Your task to perform on an android device: turn pop-ups on in chrome Image 0: 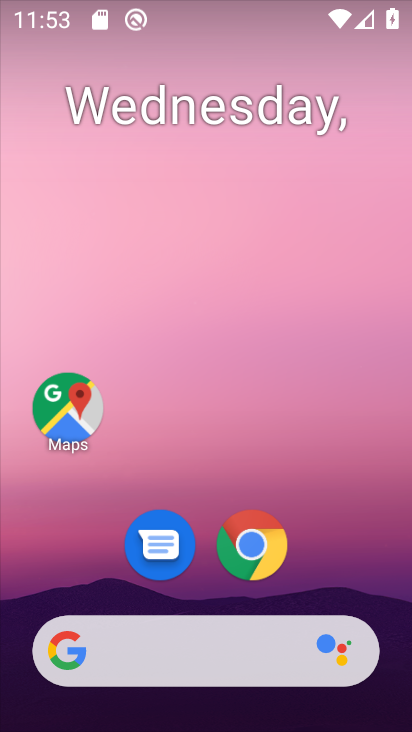
Step 0: drag from (321, 218) to (305, 71)
Your task to perform on an android device: turn pop-ups on in chrome Image 1: 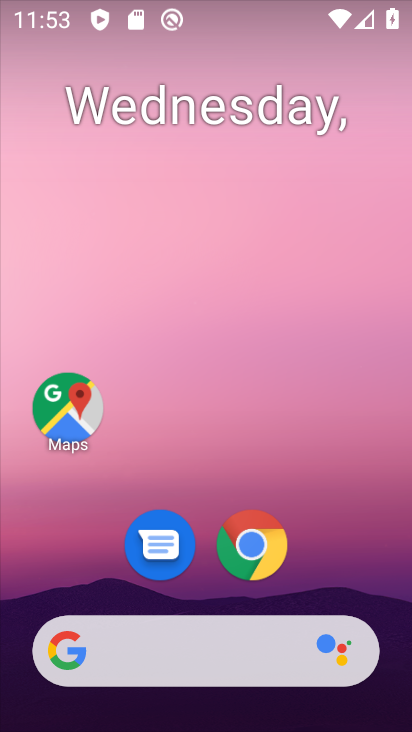
Step 1: drag from (347, 392) to (310, 51)
Your task to perform on an android device: turn pop-ups on in chrome Image 2: 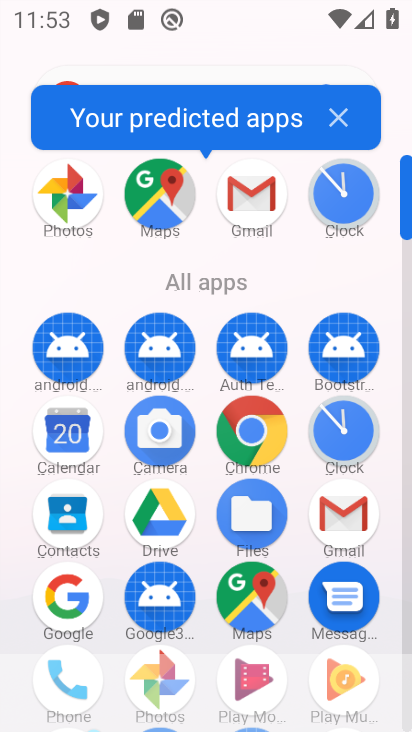
Step 2: click (243, 427)
Your task to perform on an android device: turn pop-ups on in chrome Image 3: 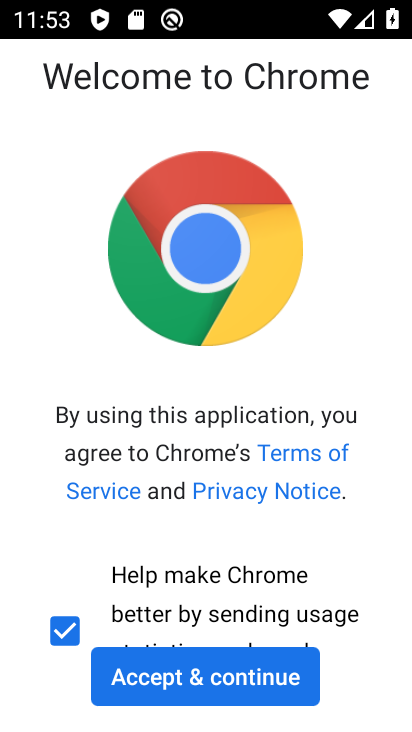
Step 3: click (164, 693)
Your task to perform on an android device: turn pop-ups on in chrome Image 4: 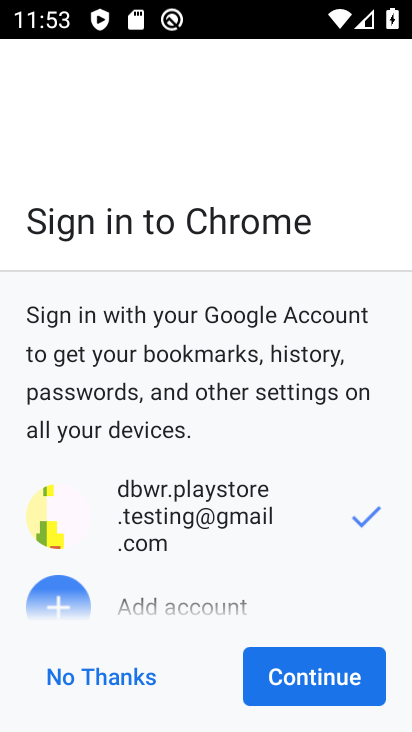
Step 4: click (275, 677)
Your task to perform on an android device: turn pop-ups on in chrome Image 5: 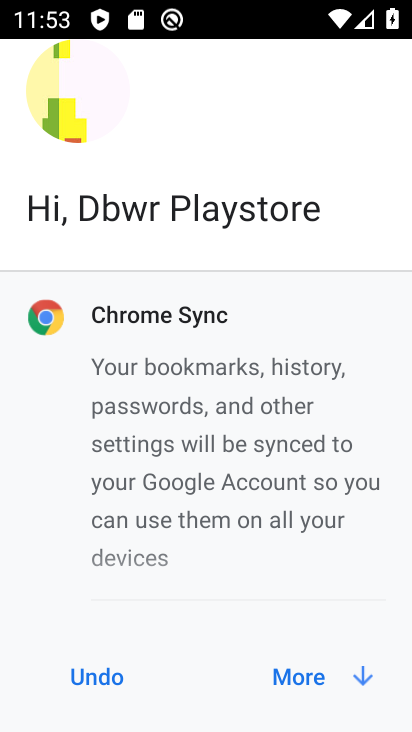
Step 5: click (274, 677)
Your task to perform on an android device: turn pop-ups on in chrome Image 6: 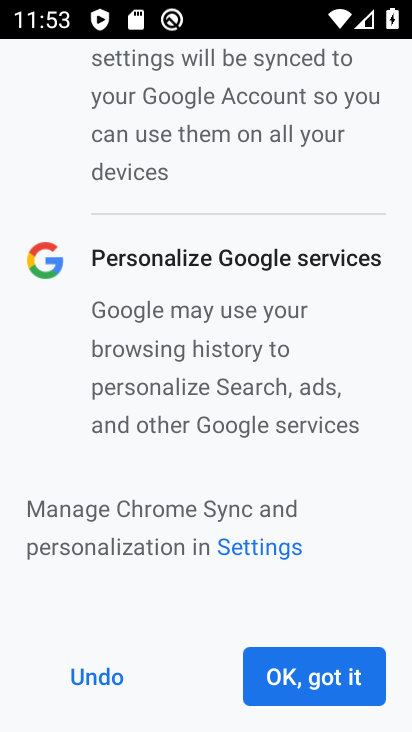
Step 6: click (274, 677)
Your task to perform on an android device: turn pop-ups on in chrome Image 7: 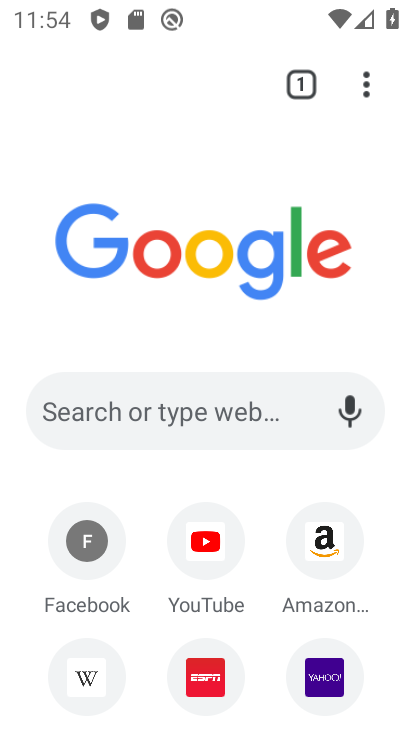
Step 7: drag from (371, 85) to (162, 588)
Your task to perform on an android device: turn pop-ups on in chrome Image 8: 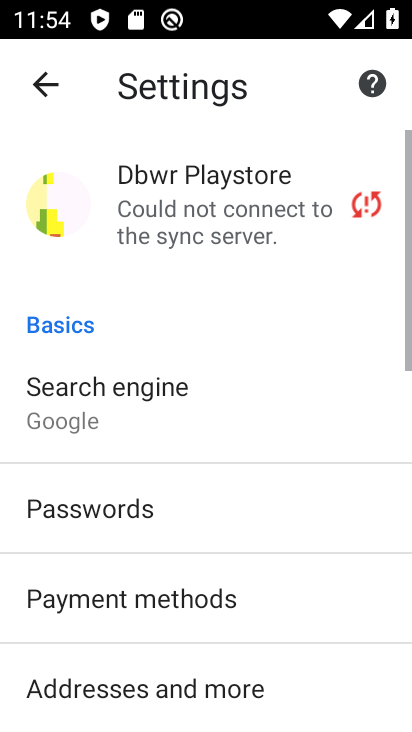
Step 8: drag from (245, 625) to (275, 119)
Your task to perform on an android device: turn pop-ups on in chrome Image 9: 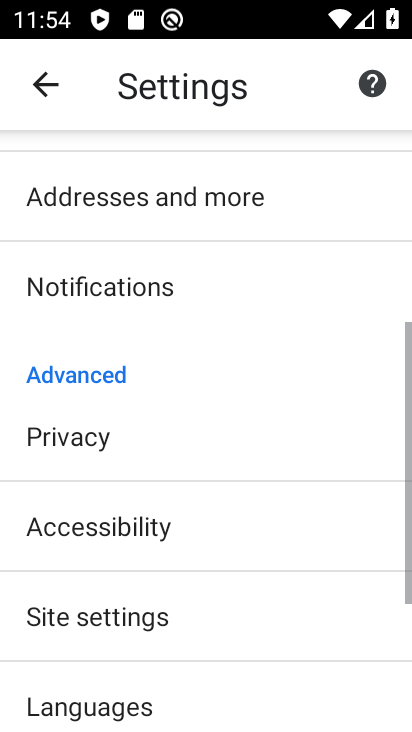
Step 9: drag from (205, 580) to (256, 266)
Your task to perform on an android device: turn pop-ups on in chrome Image 10: 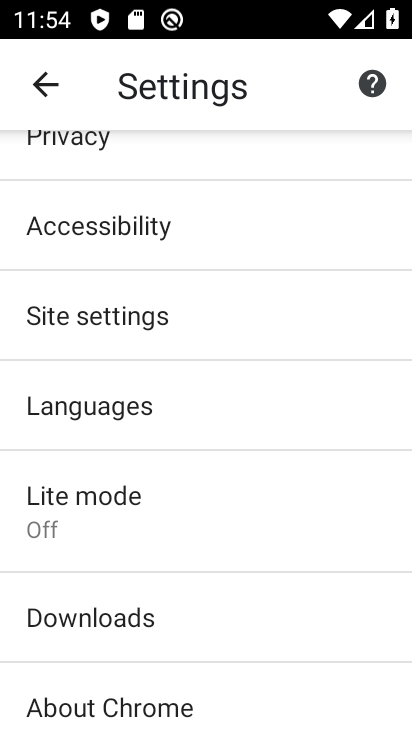
Step 10: click (108, 331)
Your task to perform on an android device: turn pop-ups on in chrome Image 11: 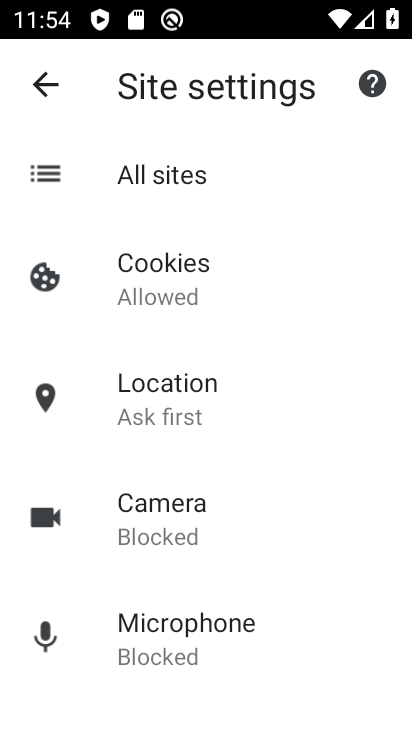
Step 11: drag from (242, 580) to (302, 178)
Your task to perform on an android device: turn pop-ups on in chrome Image 12: 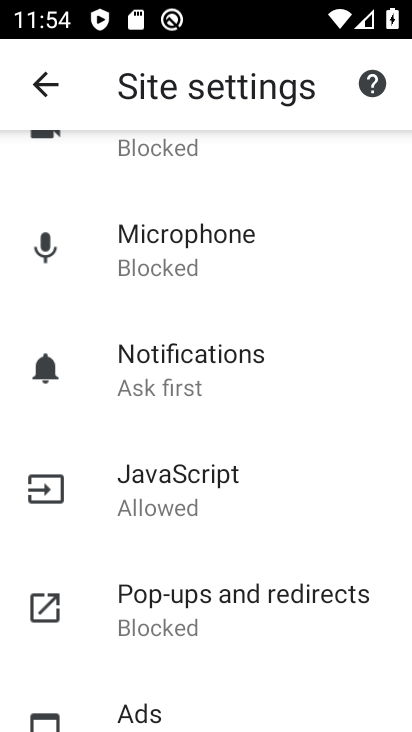
Step 12: click (172, 576)
Your task to perform on an android device: turn pop-ups on in chrome Image 13: 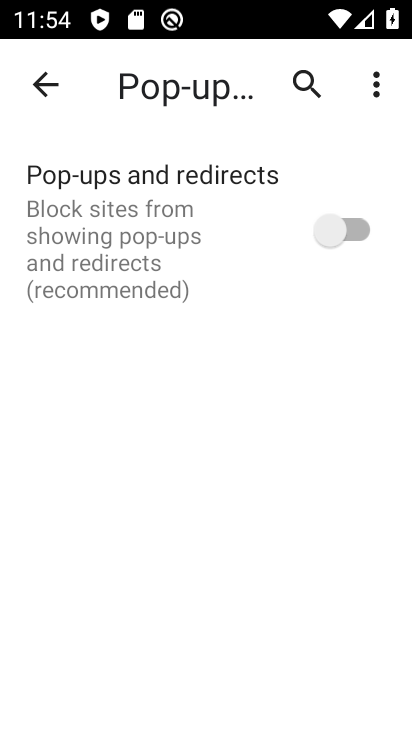
Step 13: click (337, 219)
Your task to perform on an android device: turn pop-ups on in chrome Image 14: 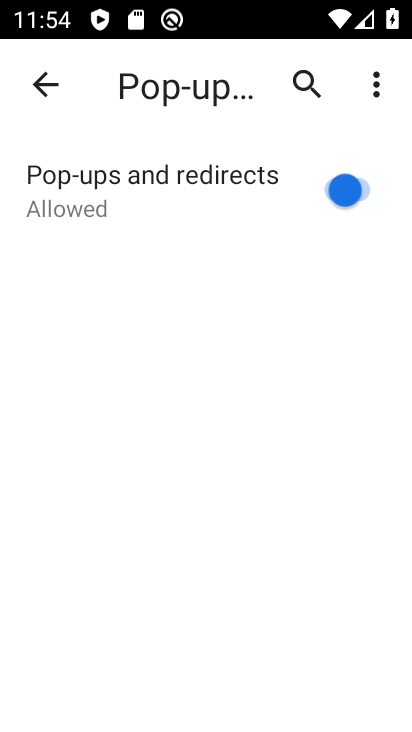
Step 14: task complete